Your task to perform on an android device: Open internet settings Image 0: 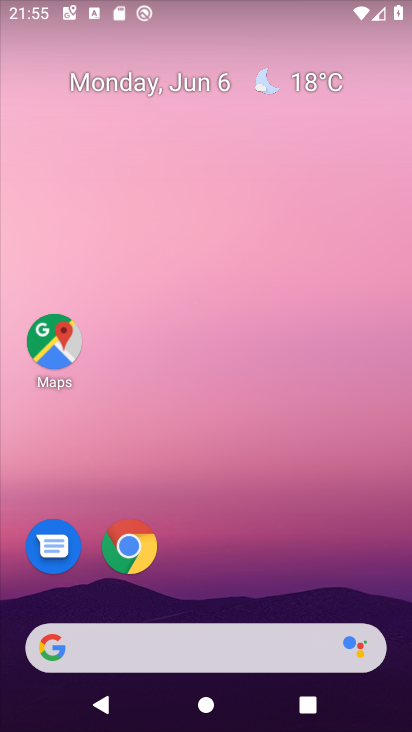
Step 0: drag from (393, 640) to (308, 111)
Your task to perform on an android device: Open internet settings Image 1: 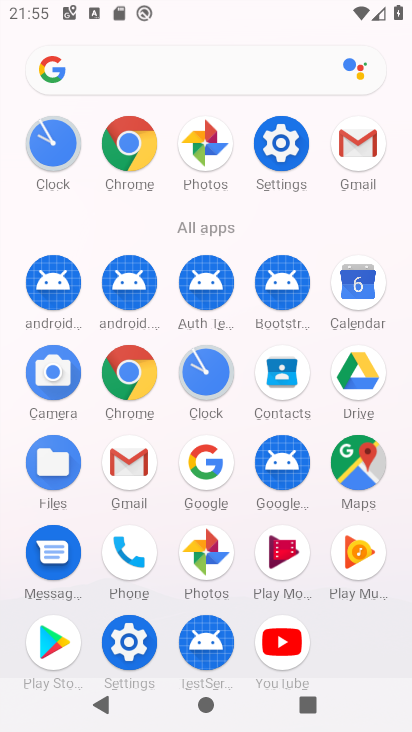
Step 1: click (125, 643)
Your task to perform on an android device: Open internet settings Image 2: 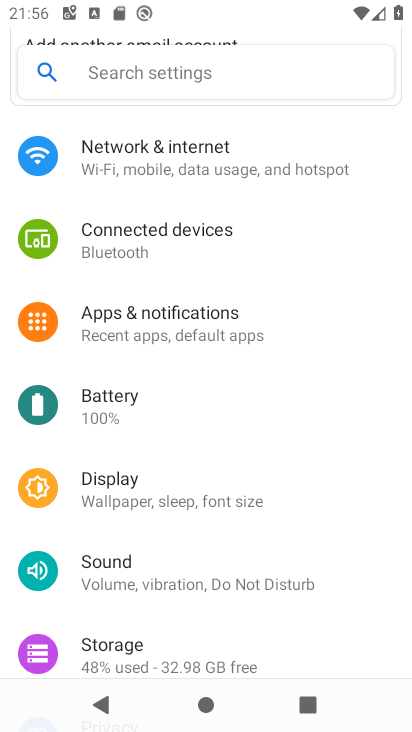
Step 2: click (142, 144)
Your task to perform on an android device: Open internet settings Image 3: 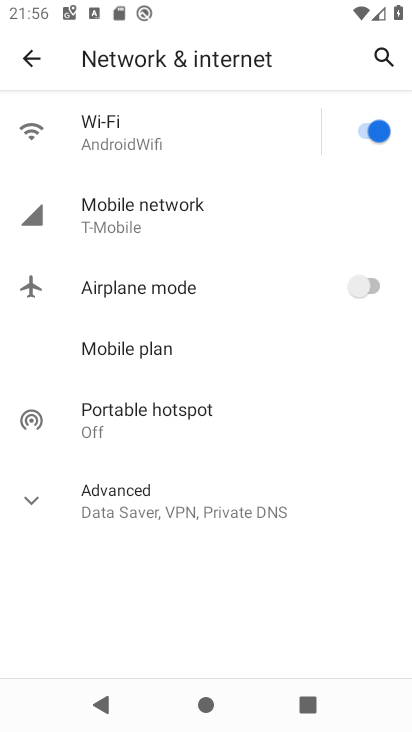
Step 3: click (31, 499)
Your task to perform on an android device: Open internet settings Image 4: 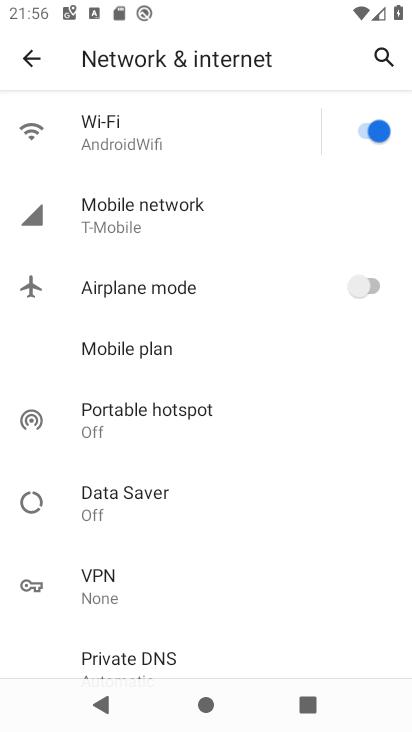
Step 4: click (166, 196)
Your task to perform on an android device: Open internet settings Image 5: 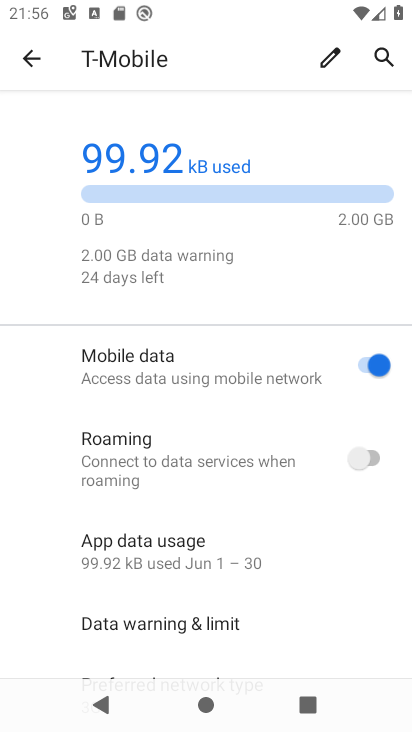
Step 5: task complete